Your task to perform on an android device: What's the weather today? Image 0: 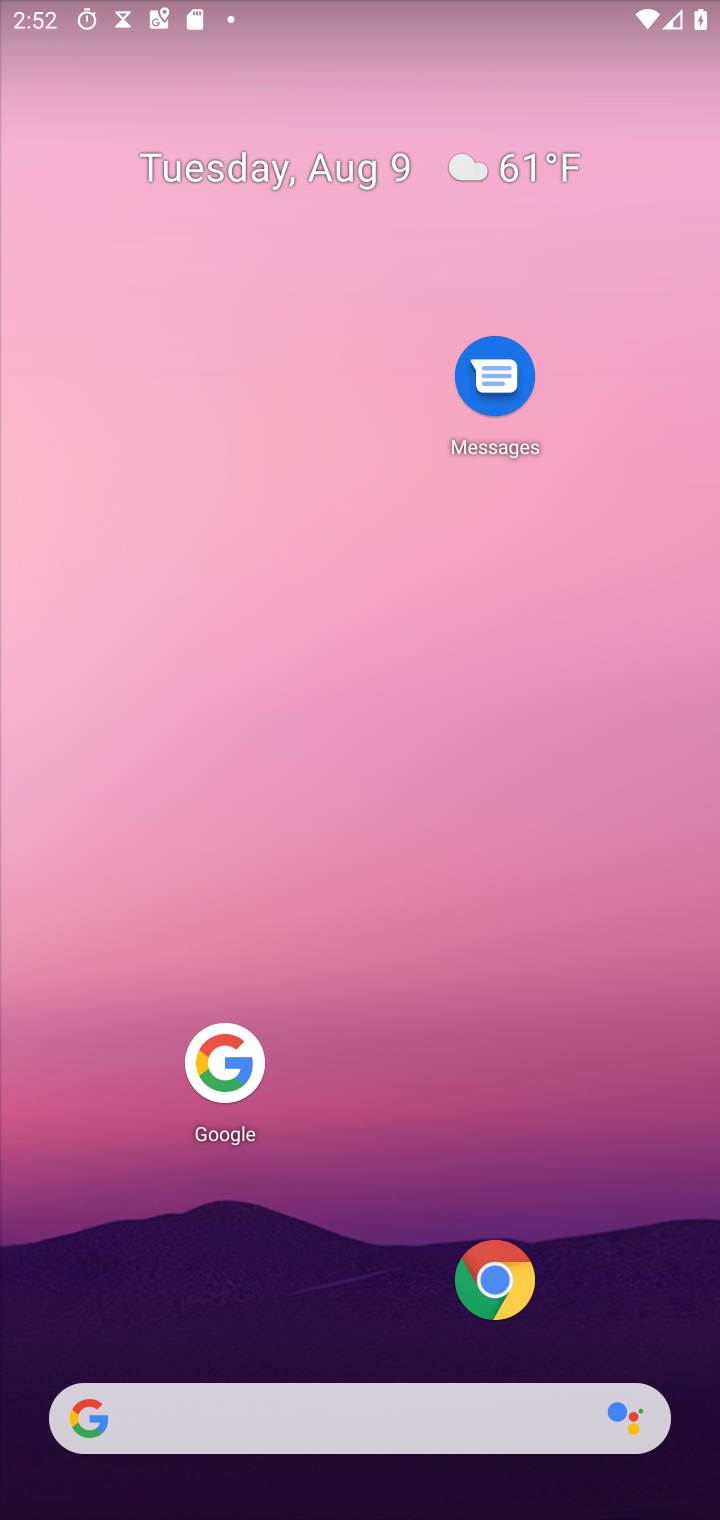
Step 0: click (271, 1416)
Your task to perform on an android device: What's the weather today? Image 1: 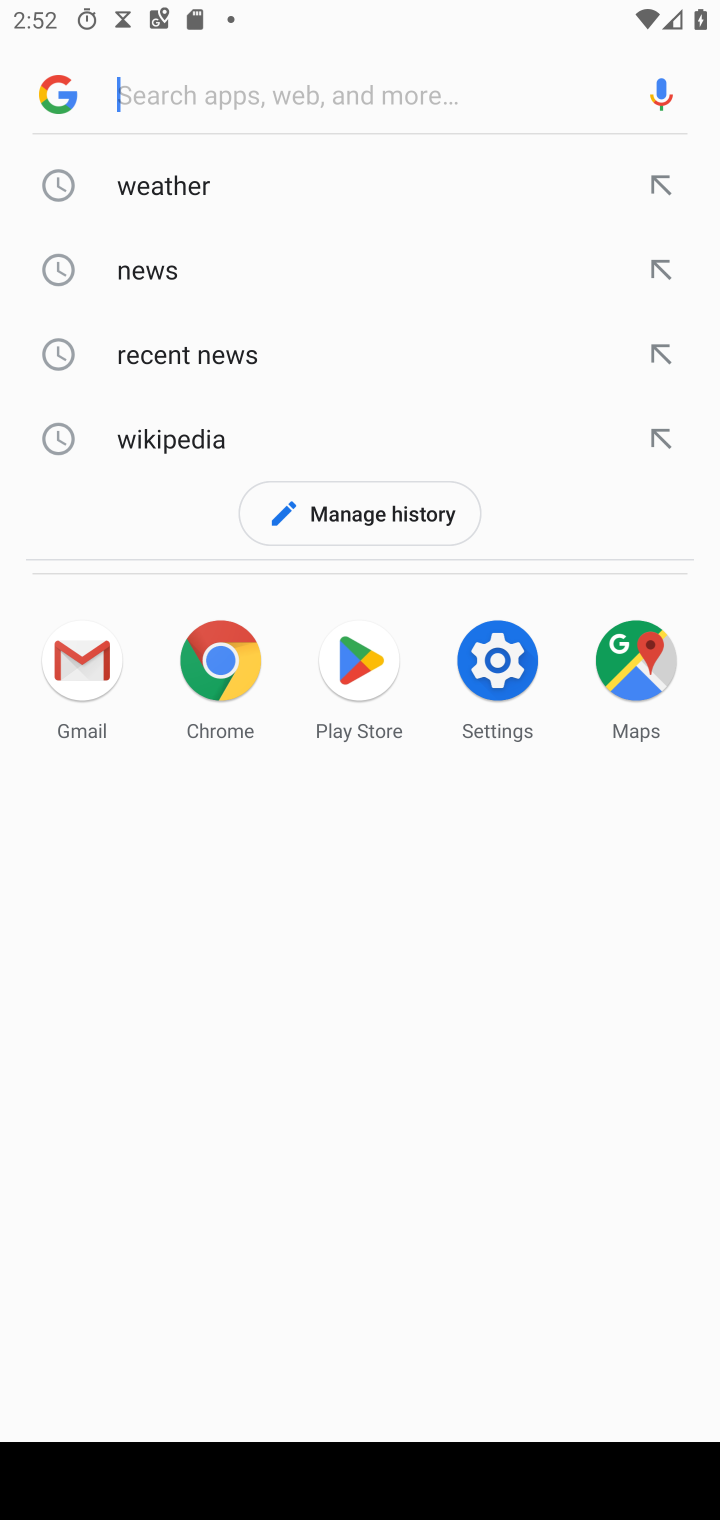
Step 1: click (170, 181)
Your task to perform on an android device: What's the weather today? Image 2: 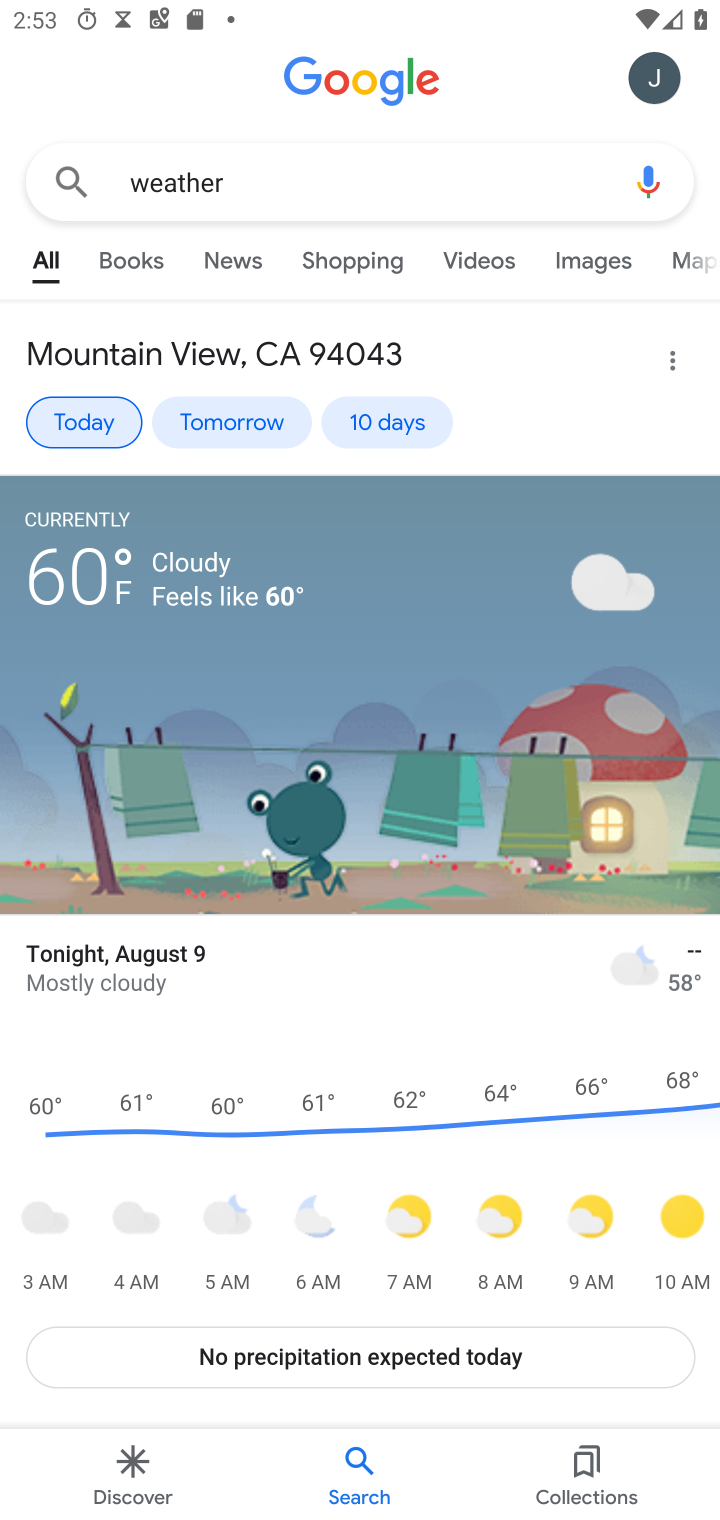
Step 2: task complete